Your task to perform on an android device: turn vacation reply on in the gmail app Image 0: 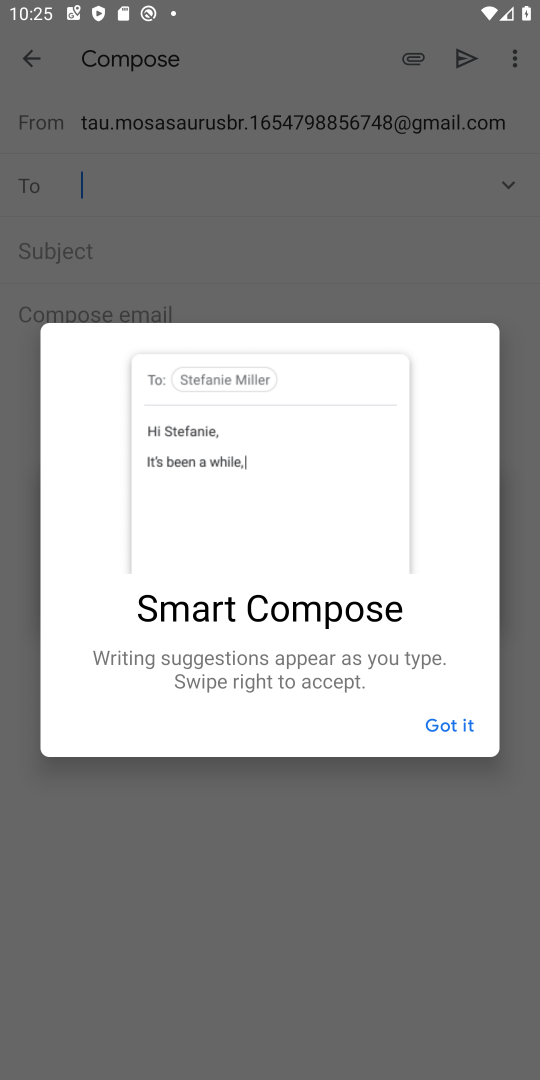
Step 0: press home button
Your task to perform on an android device: turn vacation reply on in the gmail app Image 1: 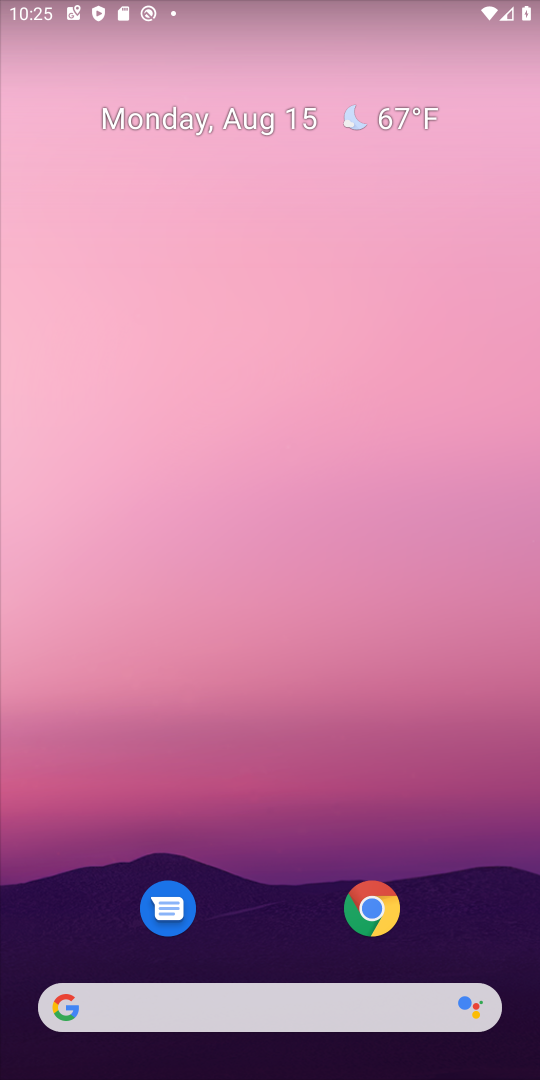
Step 1: drag from (277, 962) to (273, 123)
Your task to perform on an android device: turn vacation reply on in the gmail app Image 2: 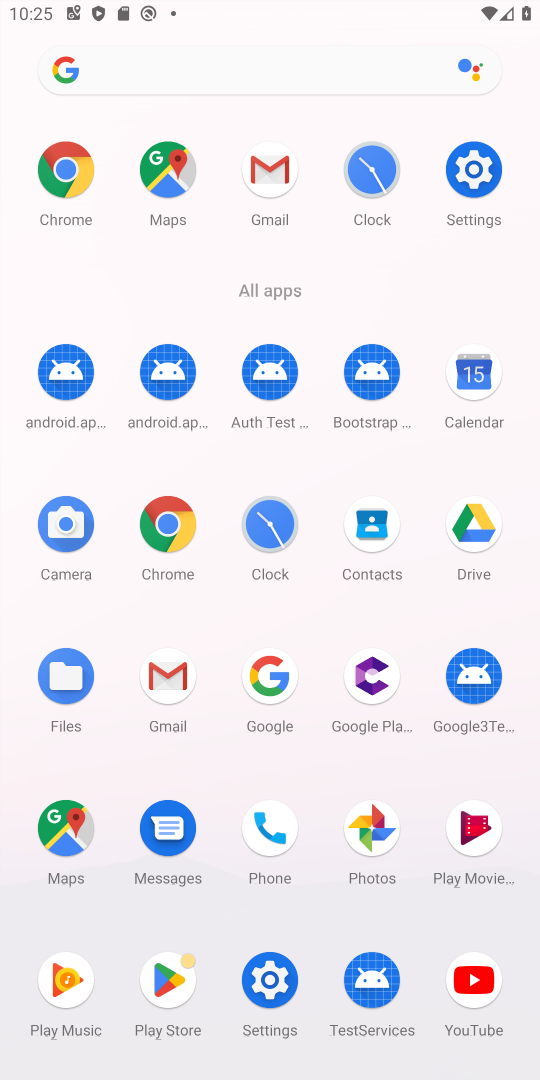
Step 2: click (279, 169)
Your task to perform on an android device: turn vacation reply on in the gmail app Image 3: 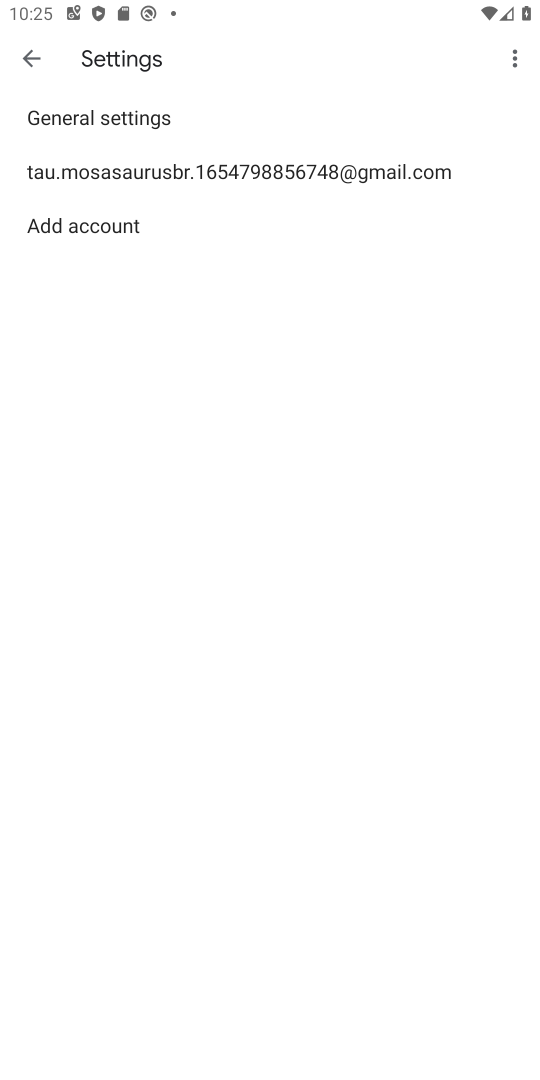
Step 3: click (279, 169)
Your task to perform on an android device: turn vacation reply on in the gmail app Image 4: 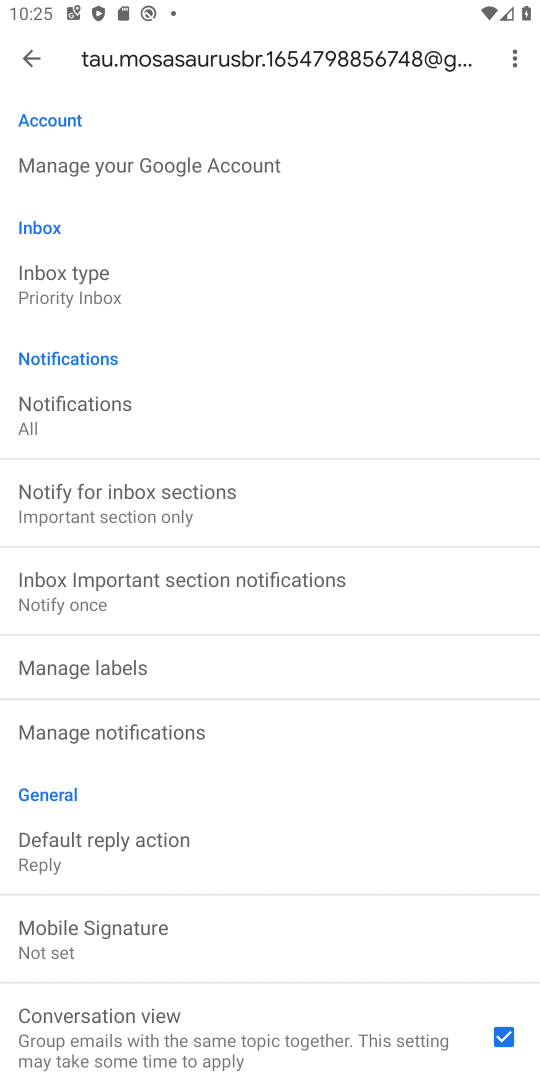
Step 4: drag from (284, 1044) to (229, 384)
Your task to perform on an android device: turn vacation reply on in the gmail app Image 5: 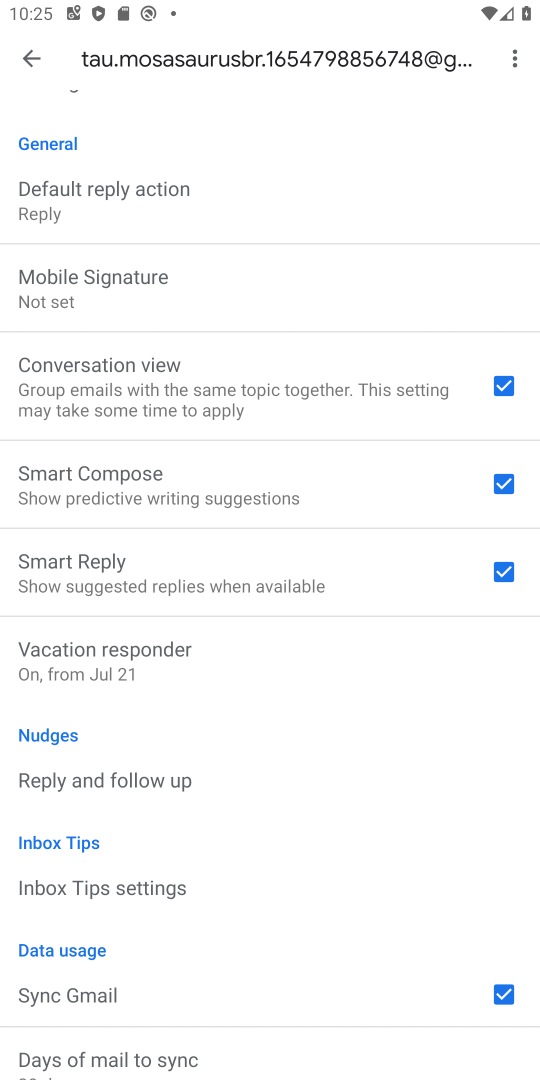
Step 5: click (124, 917)
Your task to perform on an android device: turn vacation reply on in the gmail app Image 6: 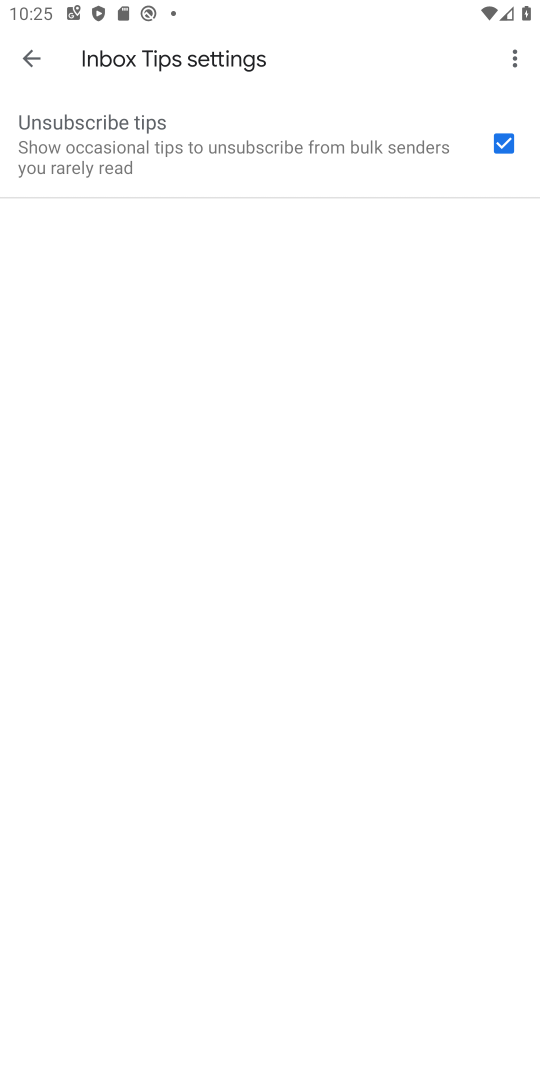
Step 6: click (125, 693)
Your task to perform on an android device: turn vacation reply on in the gmail app Image 7: 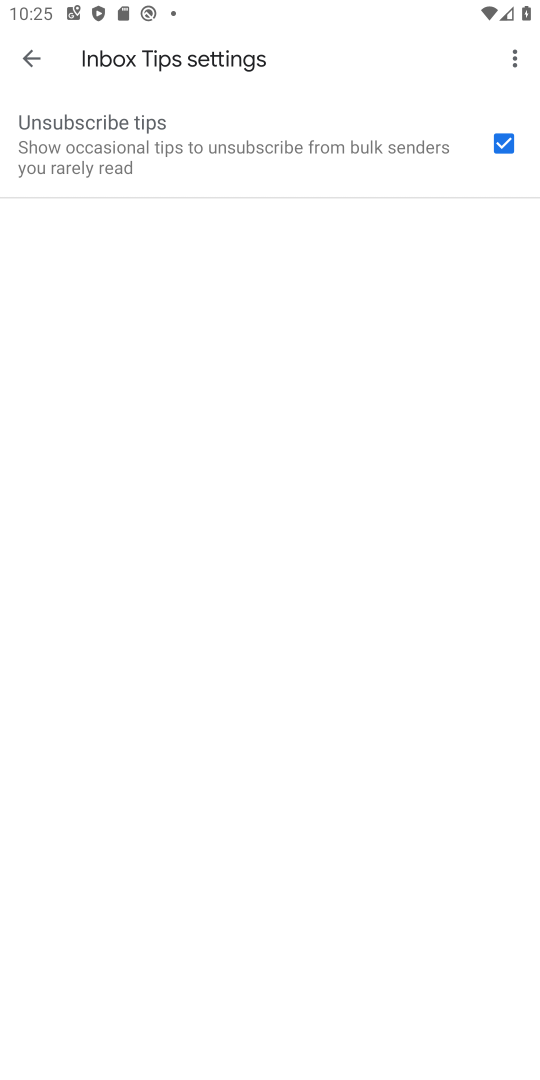
Step 7: click (22, 57)
Your task to perform on an android device: turn vacation reply on in the gmail app Image 8: 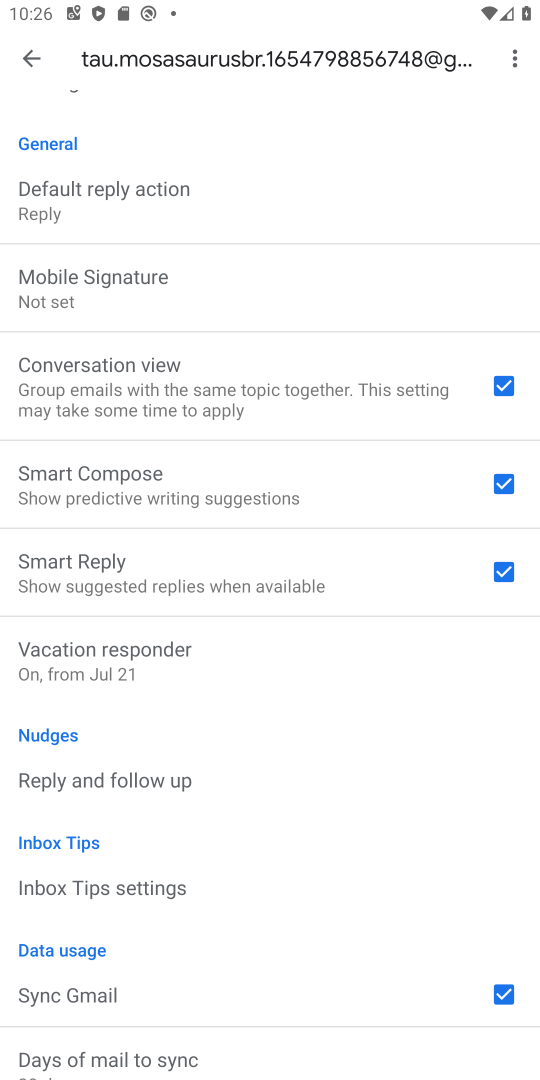
Step 8: click (190, 666)
Your task to perform on an android device: turn vacation reply on in the gmail app Image 9: 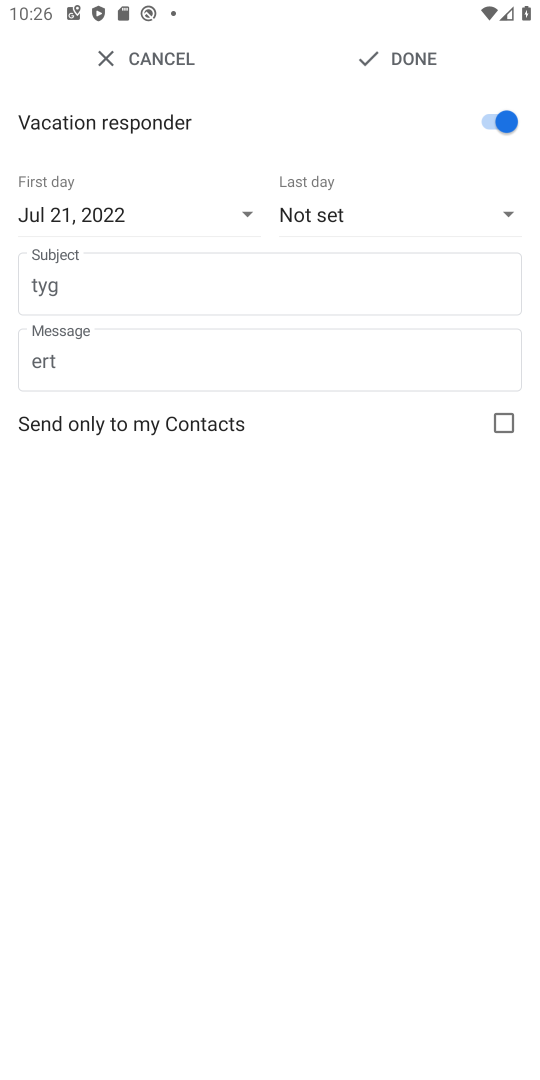
Step 9: click (413, 59)
Your task to perform on an android device: turn vacation reply on in the gmail app Image 10: 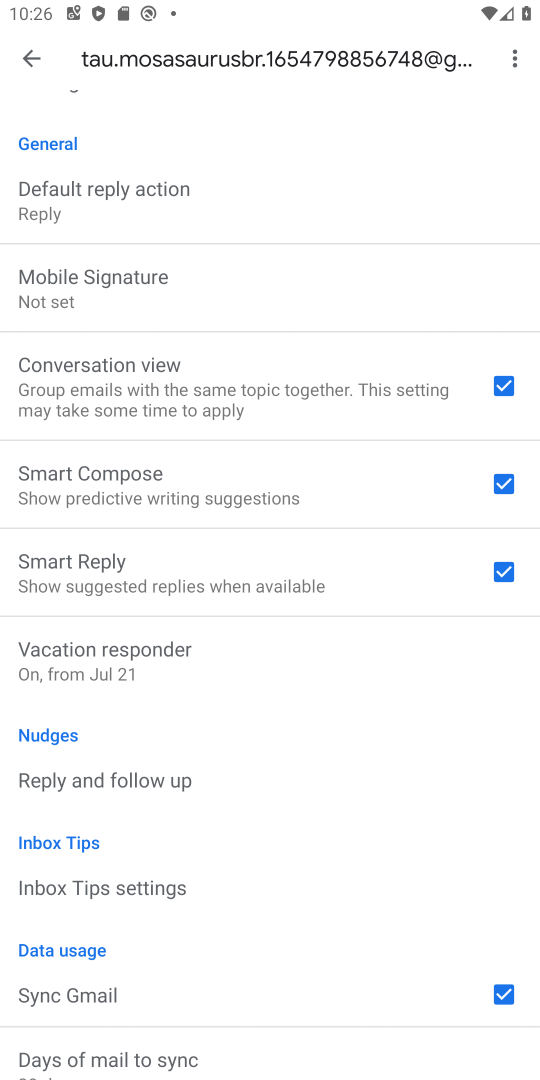
Step 10: task complete